Your task to perform on an android device: Open the calendar app, open the side menu, and click the "Day" option Image 0: 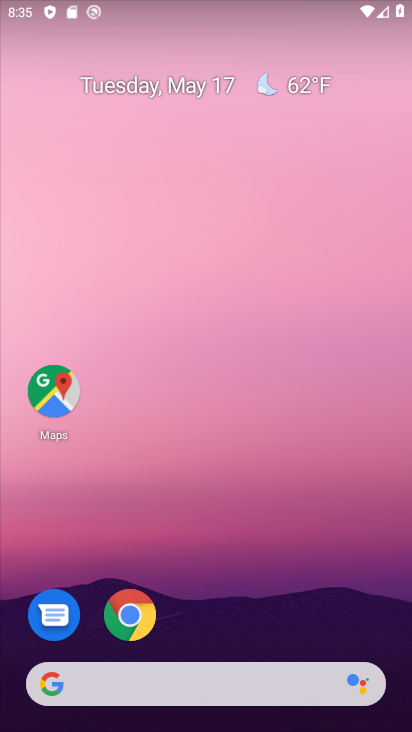
Step 0: drag from (253, 615) to (270, 197)
Your task to perform on an android device: Open the calendar app, open the side menu, and click the "Day" option Image 1: 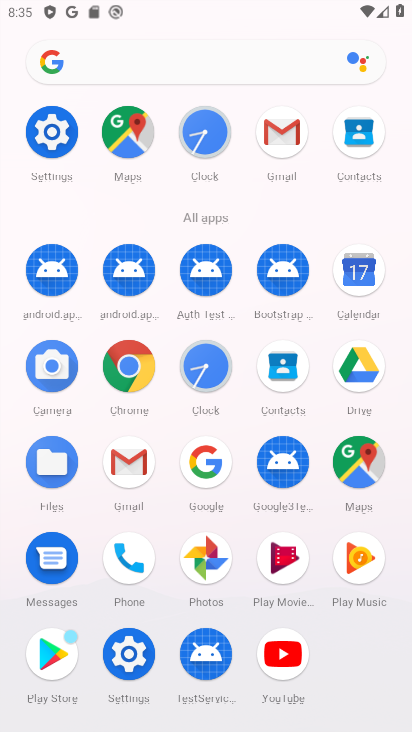
Step 1: click (352, 261)
Your task to perform on an android device: Open the calendar app, open the side menu, and click the "Day" option Image 2: 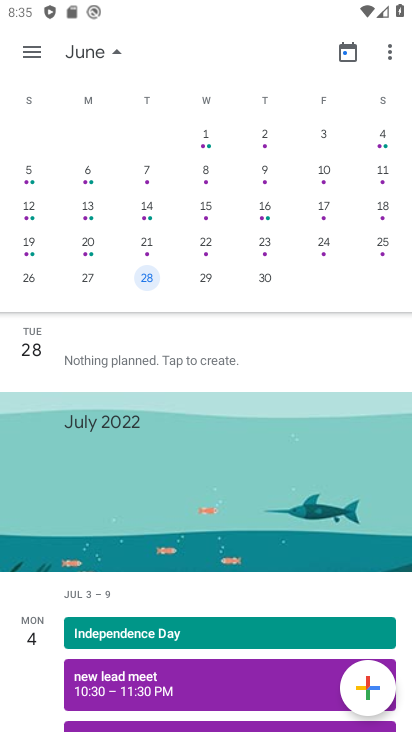
Step 2: click (21, 46)
Your task to perform on an android device: Open the calendar app, open the side menu, and click the "Day" option Image 3: 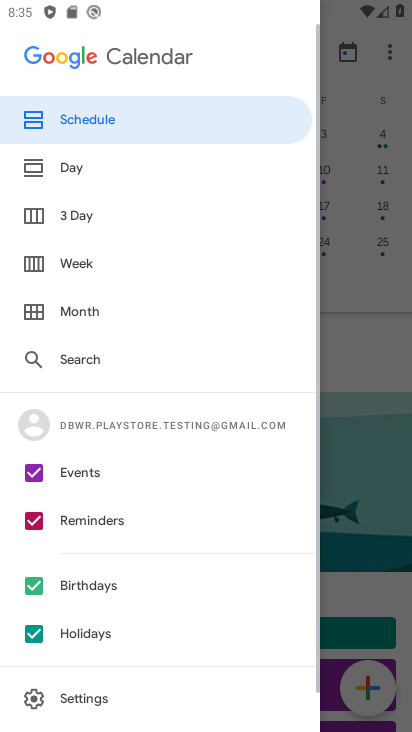
Step 3: click (71, 167)
Your task to perform on an android device: Open the calendar app, open the side menu, and click the "Day" option Image 4: 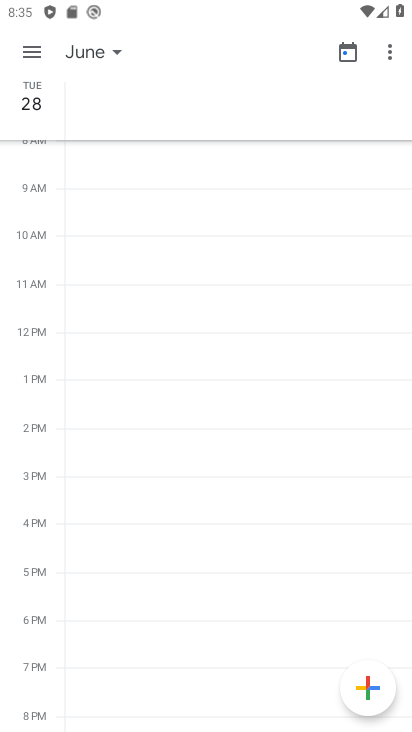
Step 4: task complete